Your task to perform on an android device: Open privacy settings Image 0: 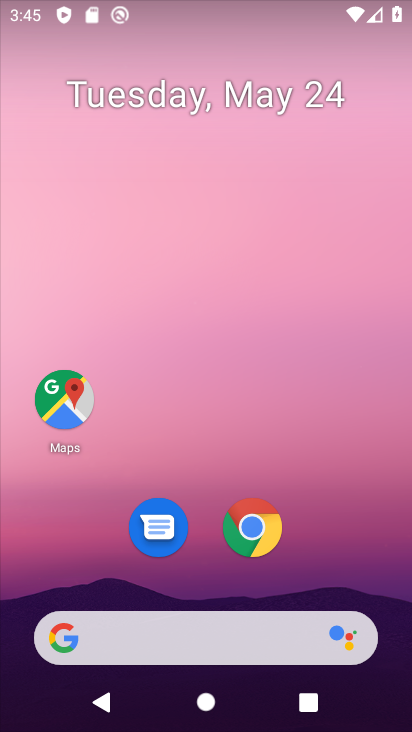
Step 0: drag from (255, 681) to (257, 277)
Your task to perform on an android device: Open privacy settings Image 1: 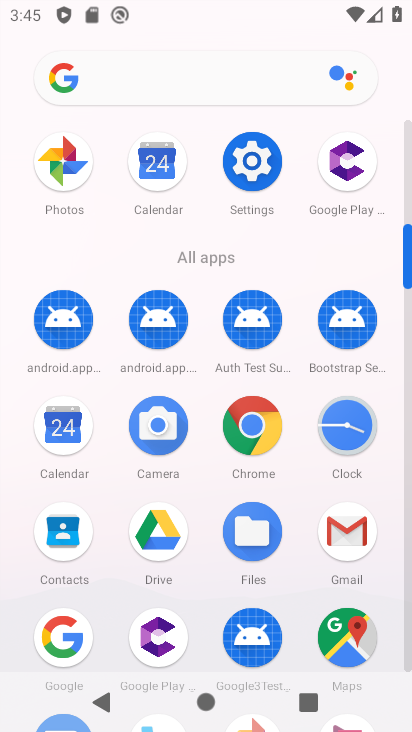
Step 1: click (263, 158)
Your task to perform on an android device: Open privacy settings Image 2: 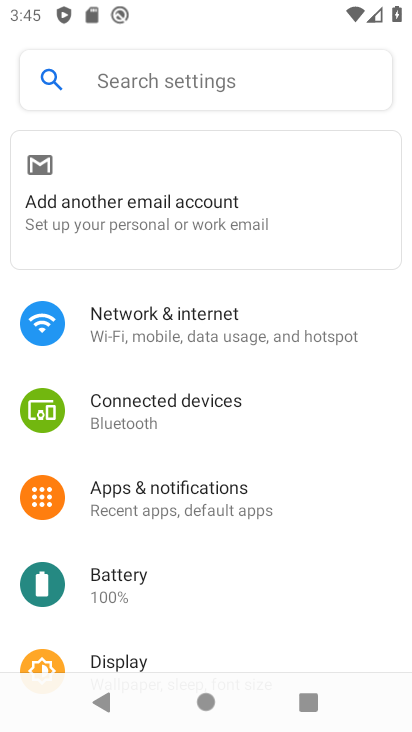
Step 2: drag from (152, 459) to (254, 8)
Your task to perform on an android device: Open privacy settings Image 3: 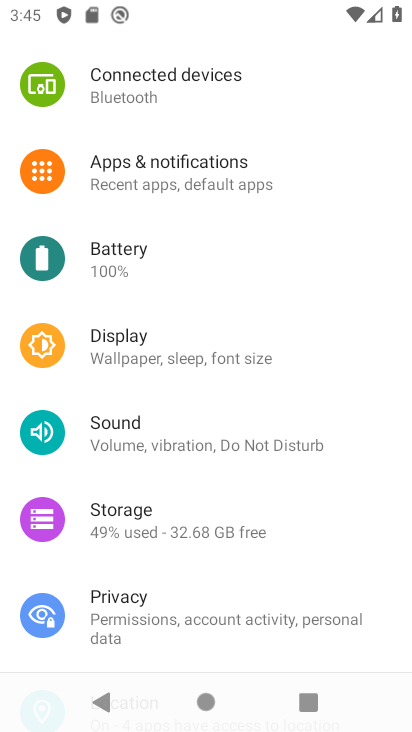
Step 3: click (110, 596)
Your task to perform on an android device: Open privacy settings Image 4: 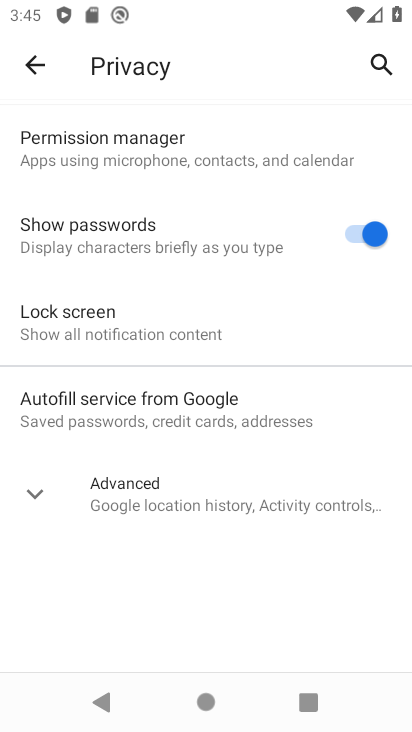
Step 4: click (86, 501)
Your task to perform on an android device: Open privacy settings Image 5: 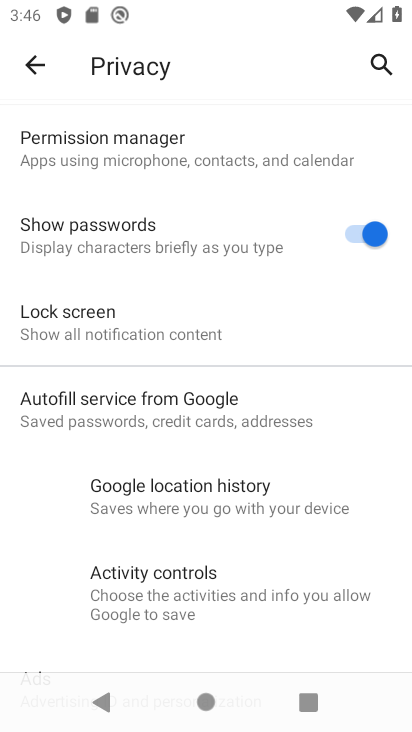
Step 5: task complete